Your task to perform on an android device: Go to eBay Image 0: 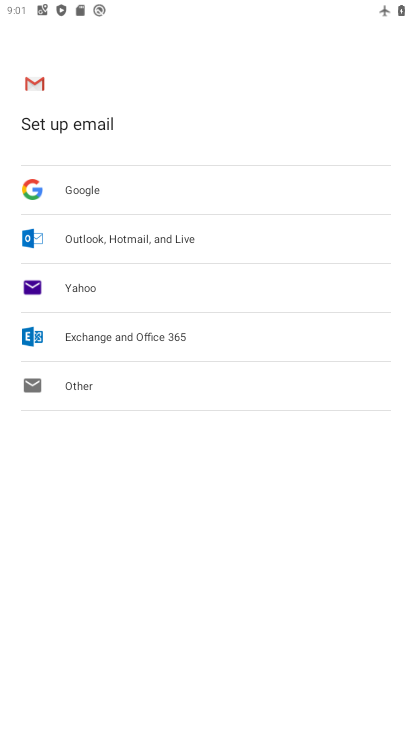
Step 0: press home button
Your task to perform on an android device: Go to eBay Image 1: 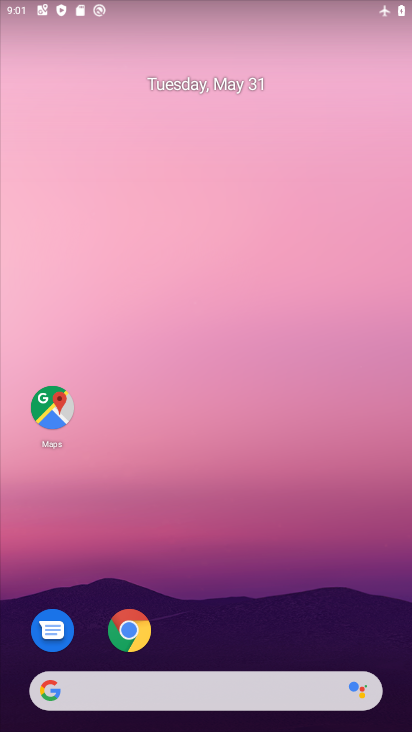
Step 1: click (138, 621)
Your task to perform on an android device: Go to eBay Image 2: 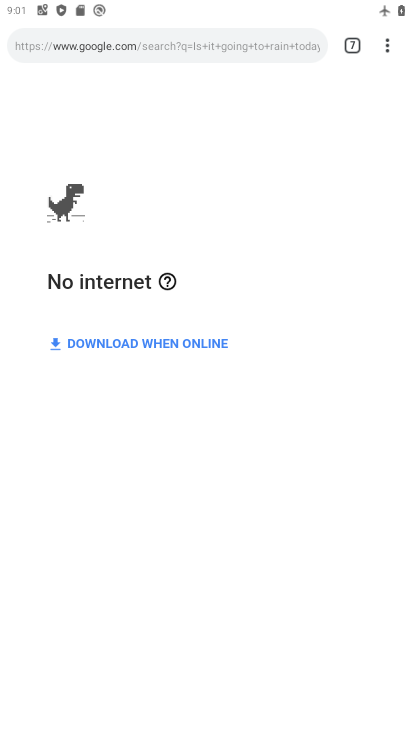
Step 2: click (378, 50)
Your task to perform on an android device: Go to eBay Image 3: 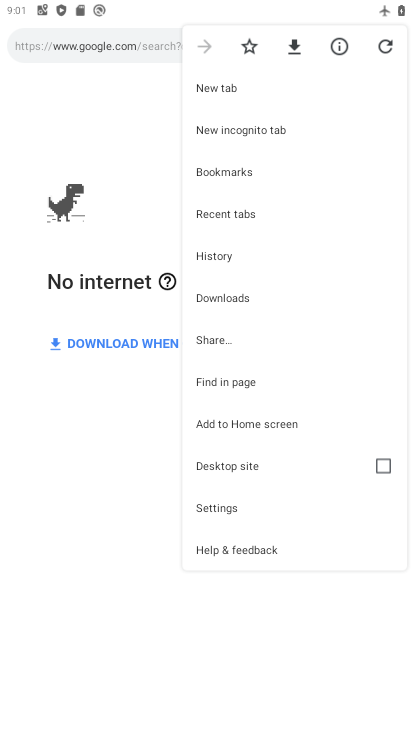
Step 3: click (258, 95)
Your task to perform on an android device: Go to eBay Image 4: 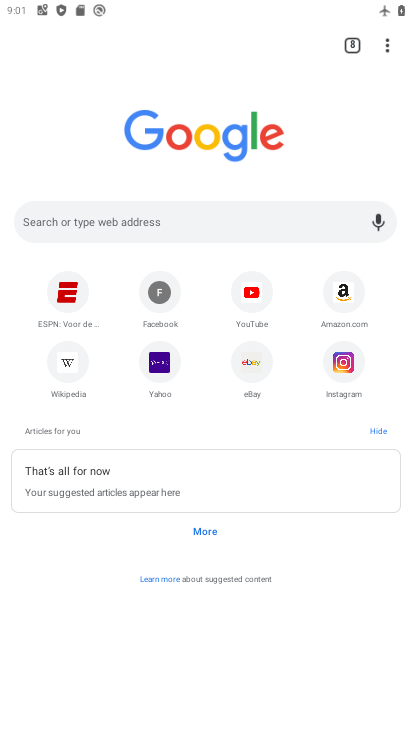
Step 4: click (240, 355)
Your task to perform on an android device: Go to eBay Image 5: 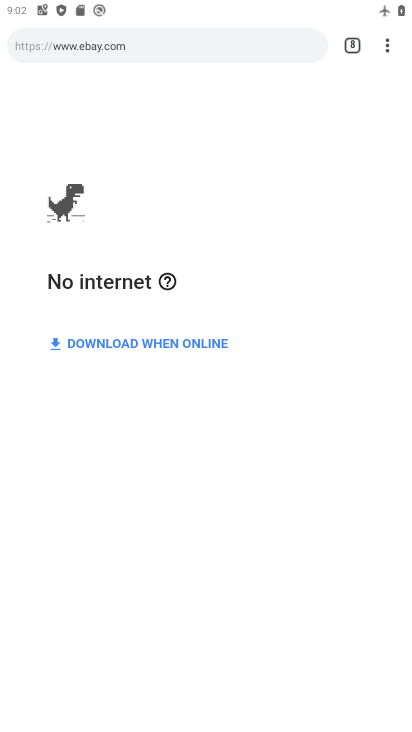
Step 5: task complete